Your task to perform on an android device: Open Wikipedia Image 0: 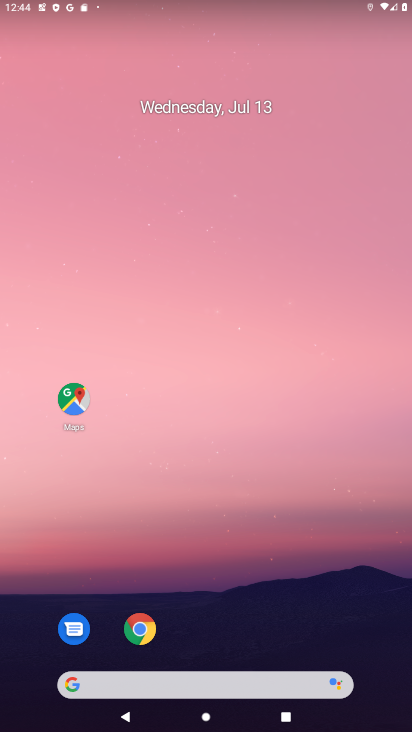
Step 0: click (150, 607)
Your task to perform on an android device: Open Wikipedia Image 1: 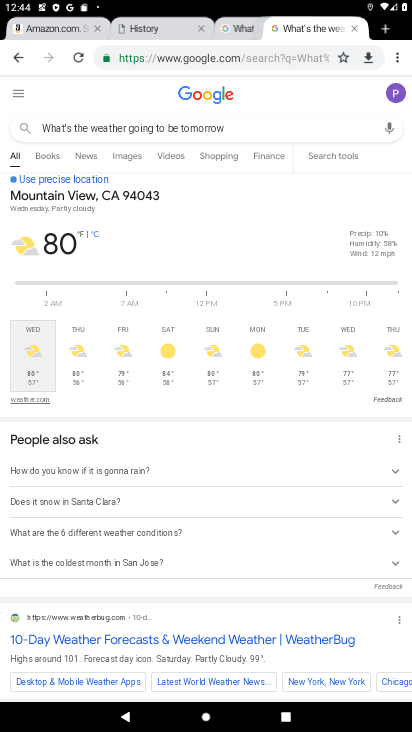
Step 1: click (395, 52)
Your task to perform on an android device: Open Wikipedia Image 2: 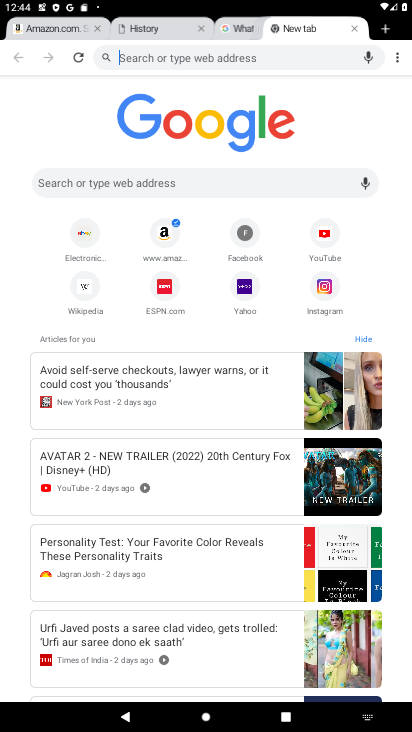
Step 2: click (67, 288)
Your task to perform on an android device: Open Wikipedia Image 3: 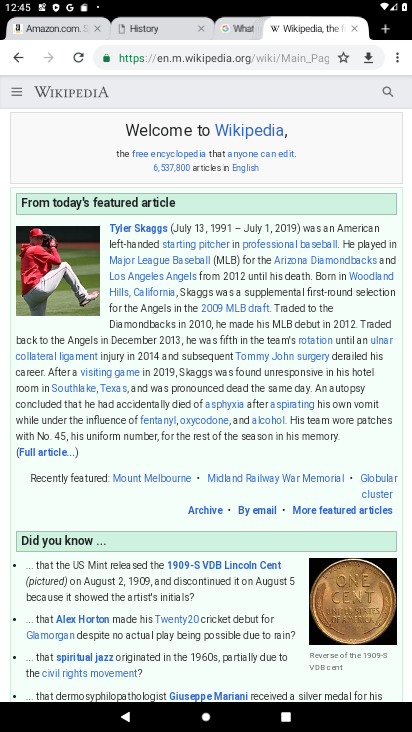
Step 3: task complete